Your task to perform on an android device: Go to Google Image 0: 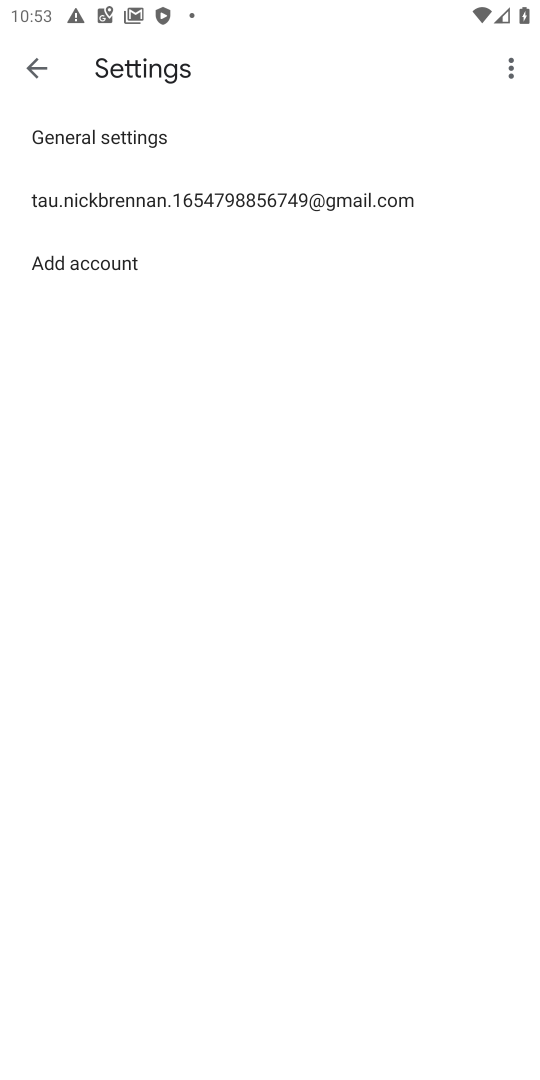
Step 0: press home button
Your task to perform on an android device: Go to Google Image 1: 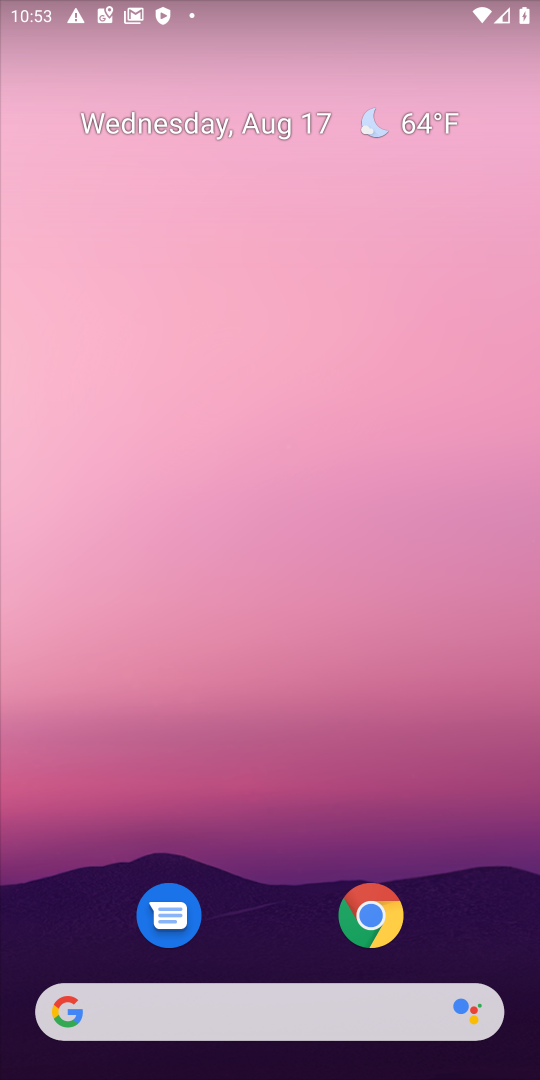
Step 1: click (59, 1022)
Your task to perform on an android device: Go to Google Image 2: 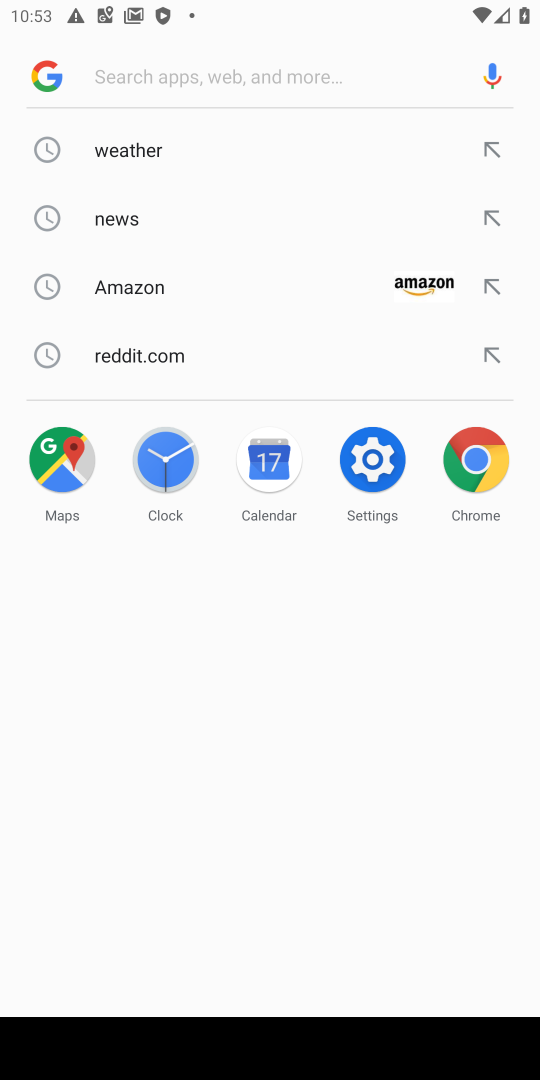
Step 2: click (43, 85)
Your task to perform on an android device: Go to Google Image 3: 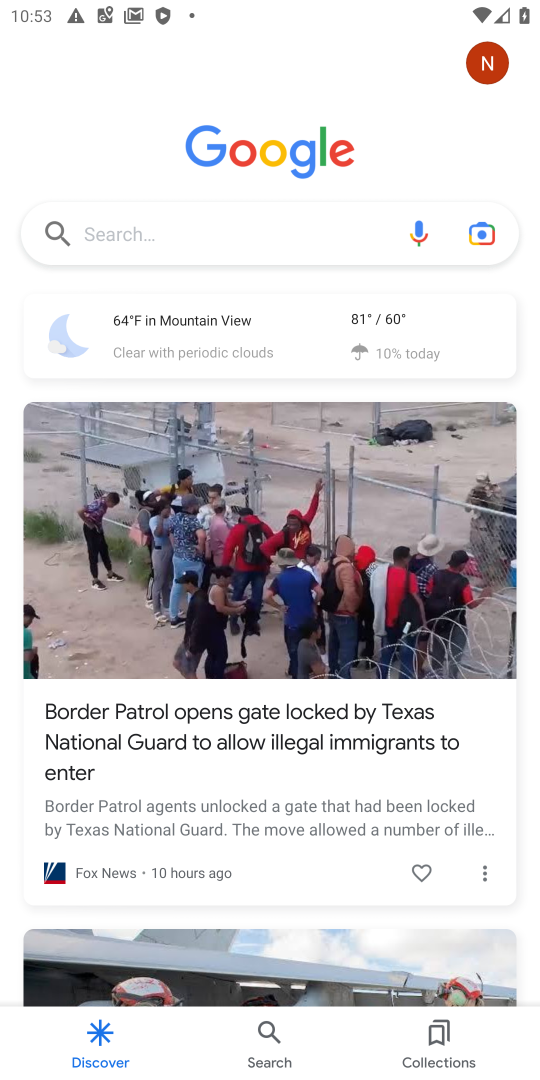
Step 3: task complete